Your task to perform on an android device: Search for hotels in Miami Image 0: 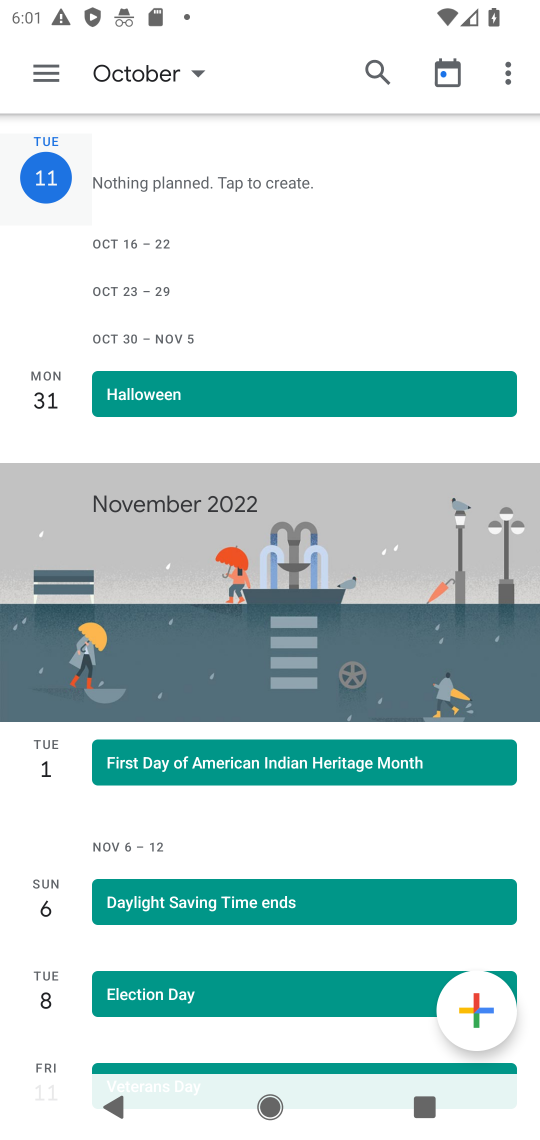
Step 0: press home button
Your task to perform on an android device: Search for hotels in Miami Image 1: 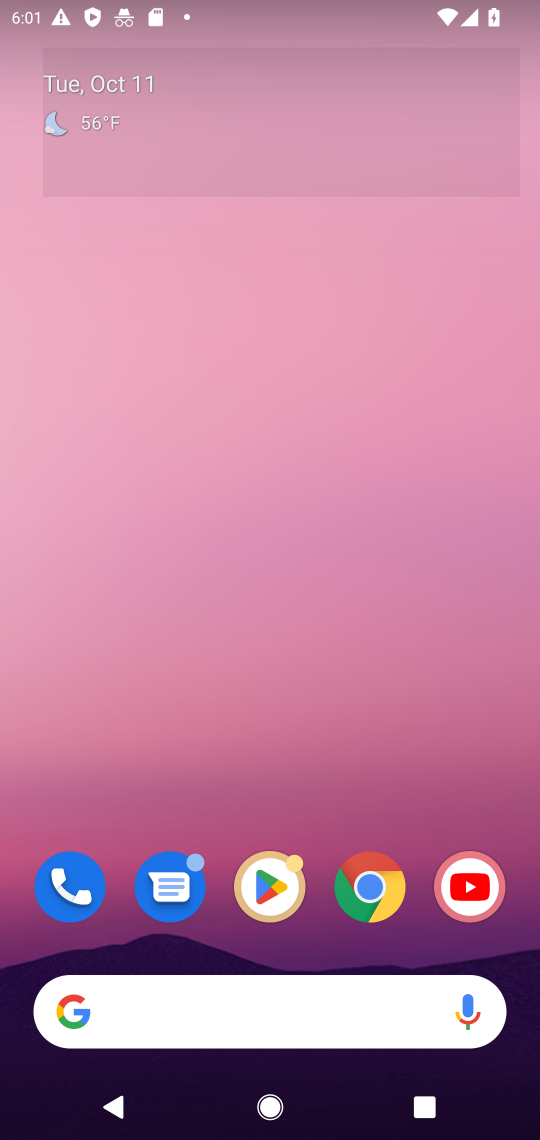
Step 1: click (324, 1012)
Your task to perform on an android device: Search for hotels in Miami Image 2: 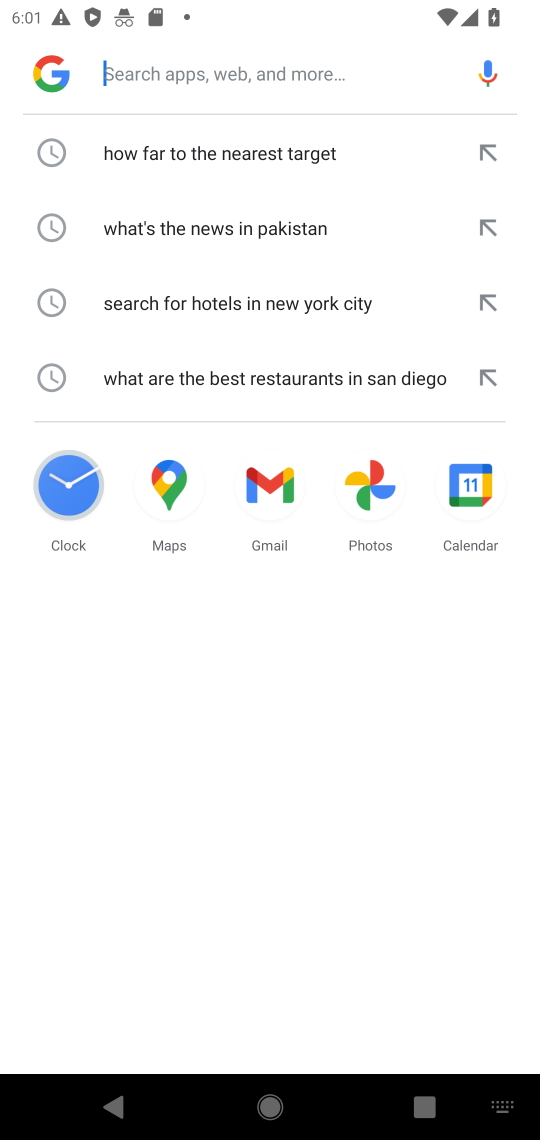
Step 2: type "hotels in Miami"
Your task to perform on an android device: Search for hotels in Miami Image 3: 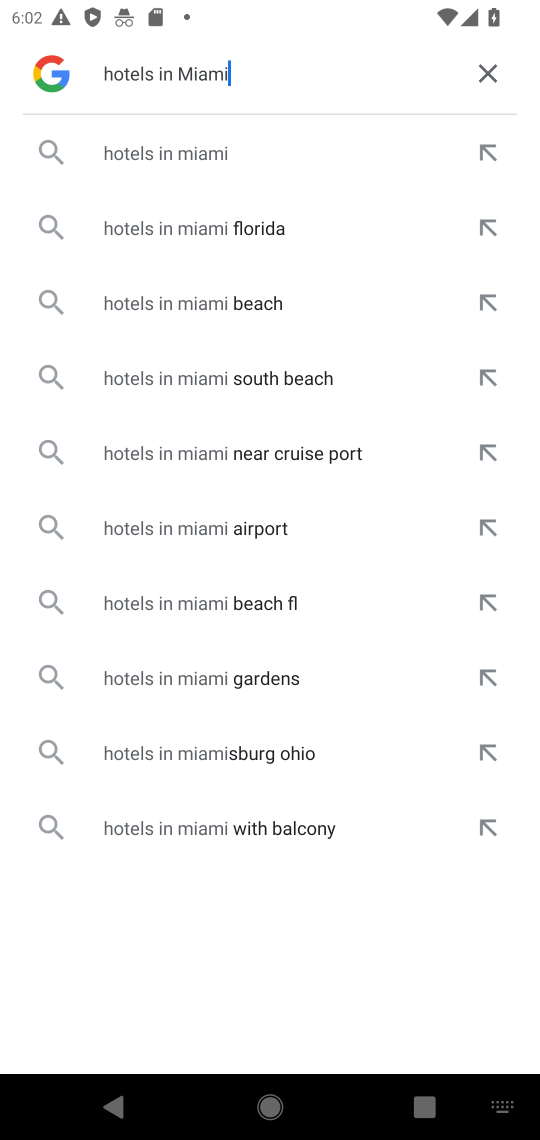
Step 3: click (168, 164)
Your task to perform on an android device: Search for hotels in Miami Image 4: 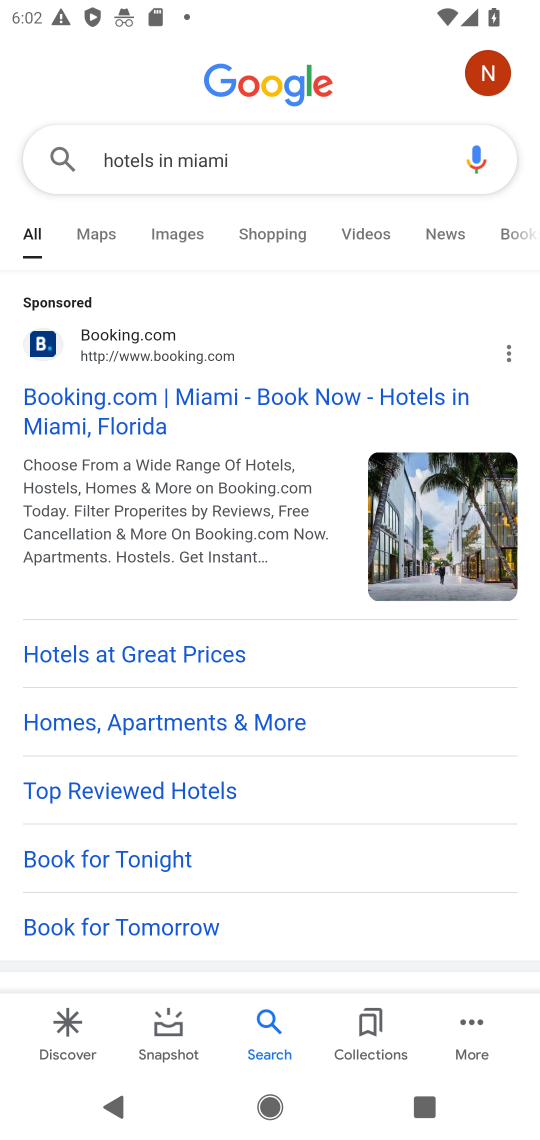
Step 4: task complete